Your task to perform on an android device: show emergency info Image 0: 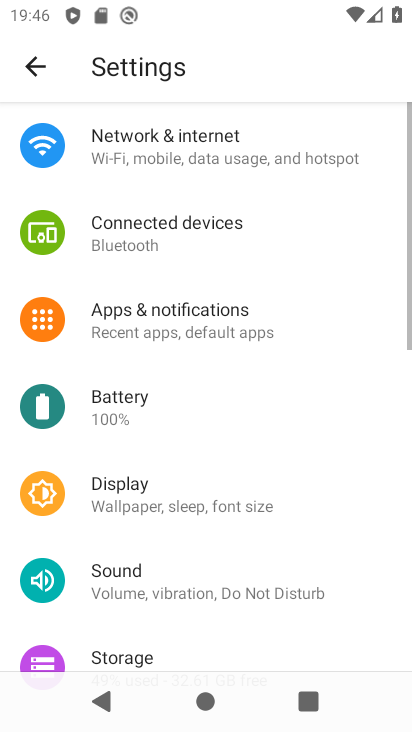
Step 0: press home button
Your task to perform on an android device: show emergency info Image 1: 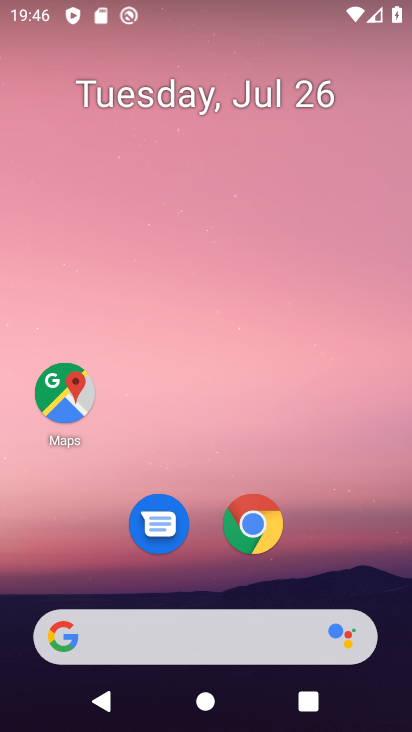
Step 1: drag from (206, 545) to (335, 51)
Your task to perform on an android device: show emergency info Image 2: 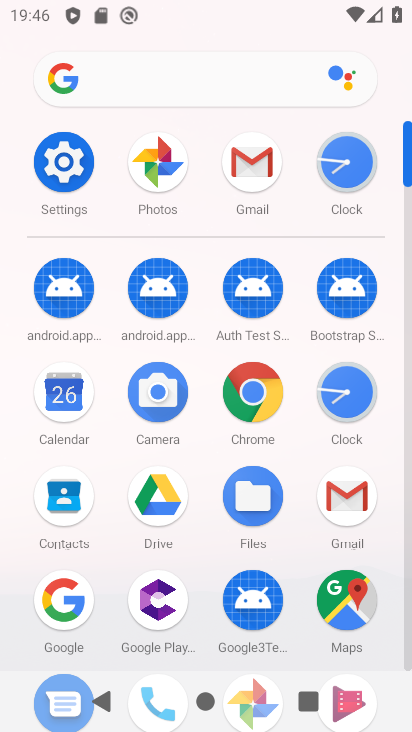
Step 2: click (66, 162)
Your task to perform on an android device: show emergency info Image 3: 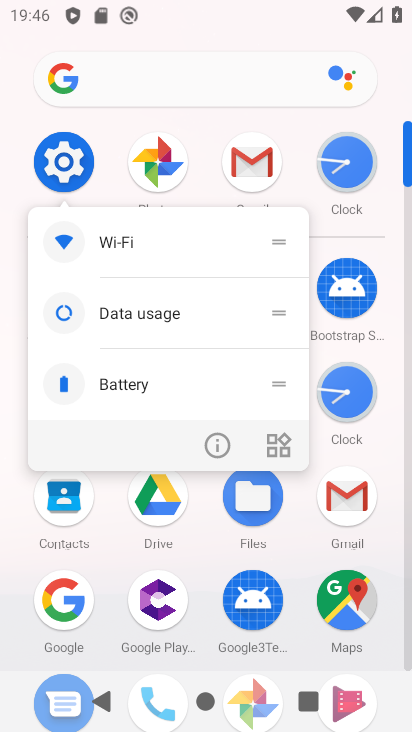
Step 3: click (66, 162)
Your task to perform on an android device: show emergency info Image 4: 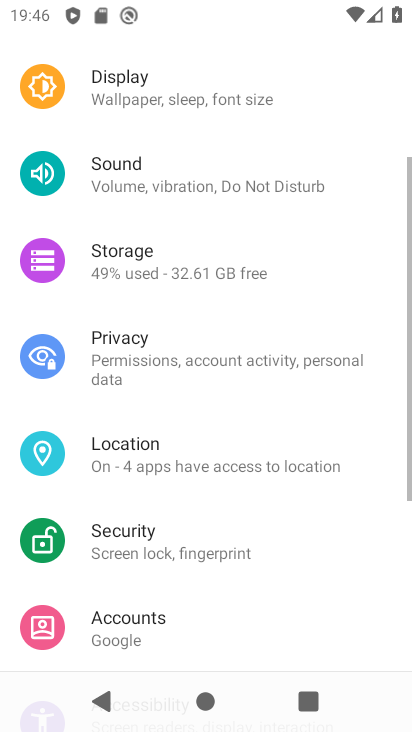
Step 4: drag from (228, 640) to (397, 46)
Your task to perform on an android device: show emergency info Image 5: 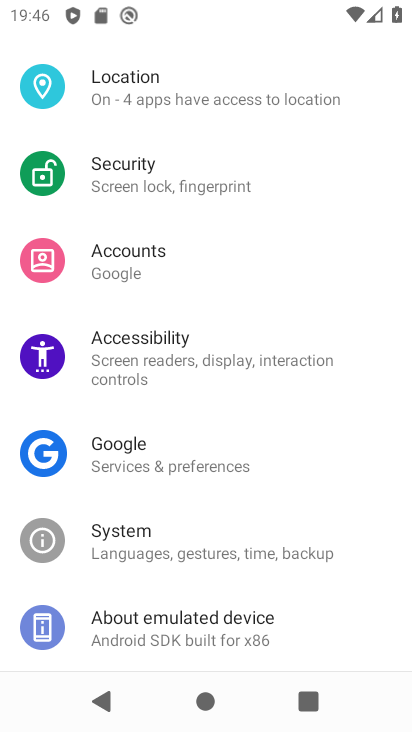
Step 5: drag from (247, 582) to (382, 175)
Your task to perform on an android device: show emergency info Image 6: 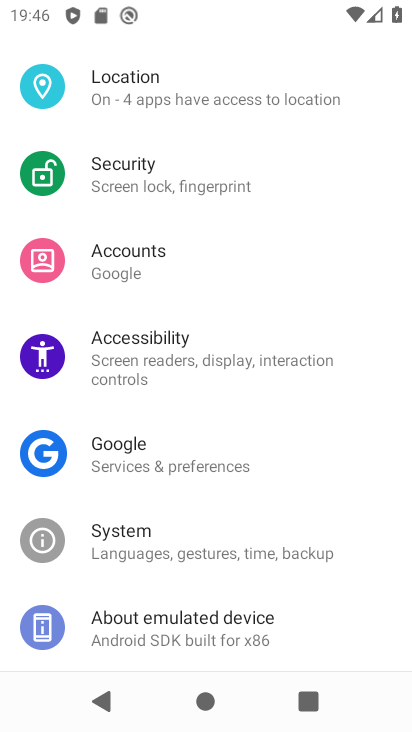
Step 6: click (220, 631)
Your task to perform on an android device: show emergency info Image 7: 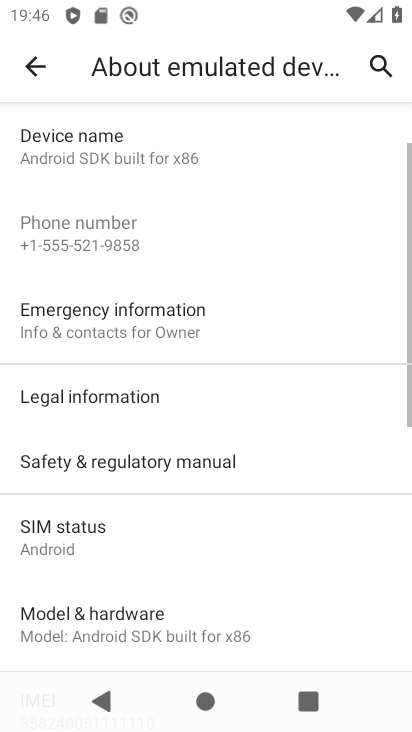
Step 7: click (152, 314)
Your task to perform on an android device: show emergency info Image 8: 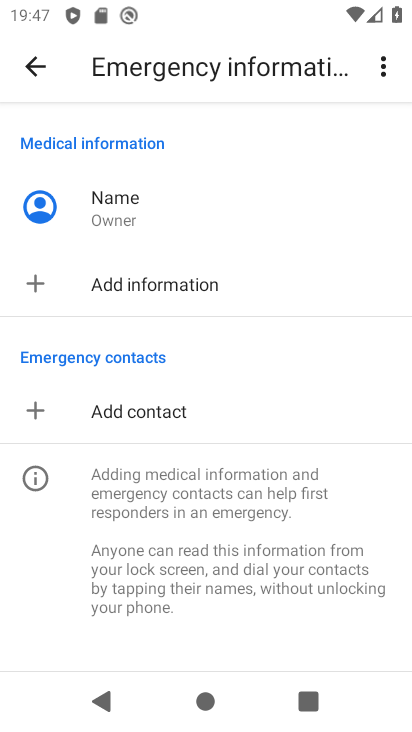
Step 8: task complete